Your task to perform on an android device: Open Google Maps and go to "Timeline" Image 0: 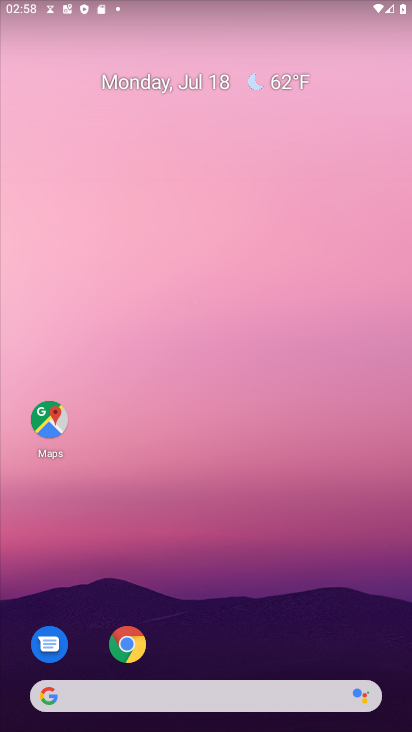
Step 0: drag from (266, 608) to (204, 197)
Your task to perform on an android device: Open Google Maps and go to "Timeline" Image 1: 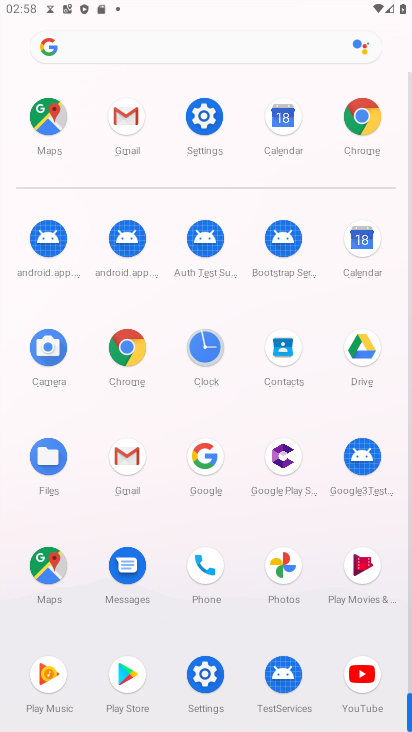
Step 1: click (52, 553)
Your task to perform on an android device: Open Google Maps and go to "Timeline" Image 2: 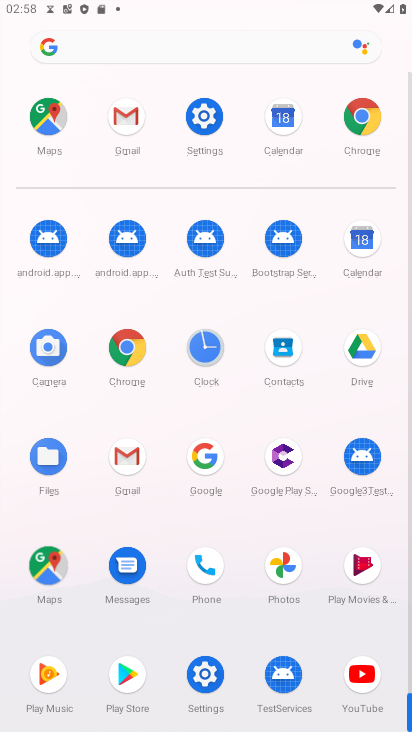
Step 2: click (50, 554)
Your task to perform on an android device: Open Google Maps and go to "Timeline" Image 3: 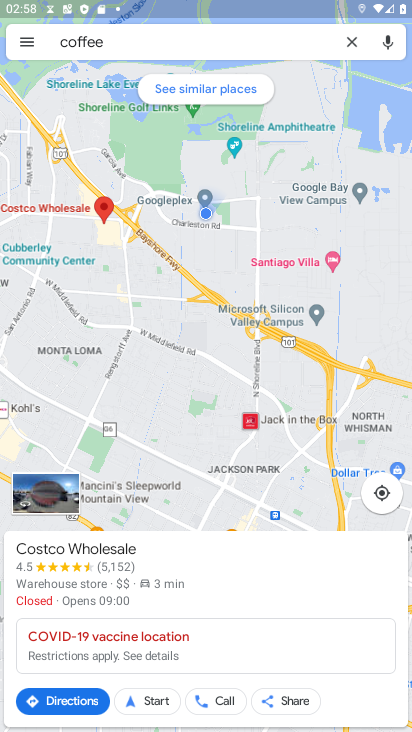
Step 3: click (24, 40)
Your task to perform on an android device: Open Google Maps and go to "Timeline" Image 4: 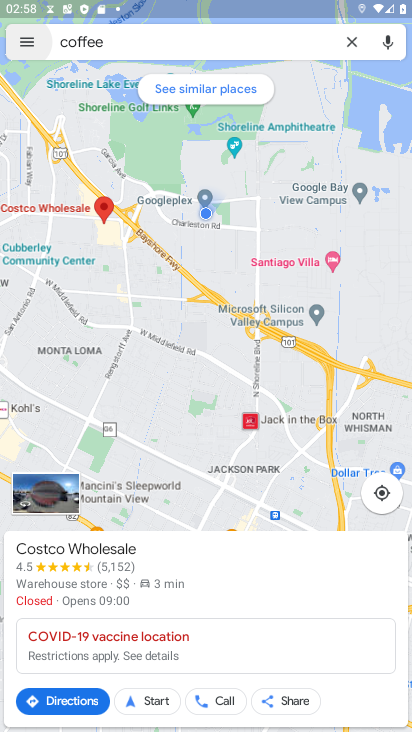
Step 4: click (27, 41)
Your task to perform on an android device: Open Google Maps and go to "Timeline" Image 5: 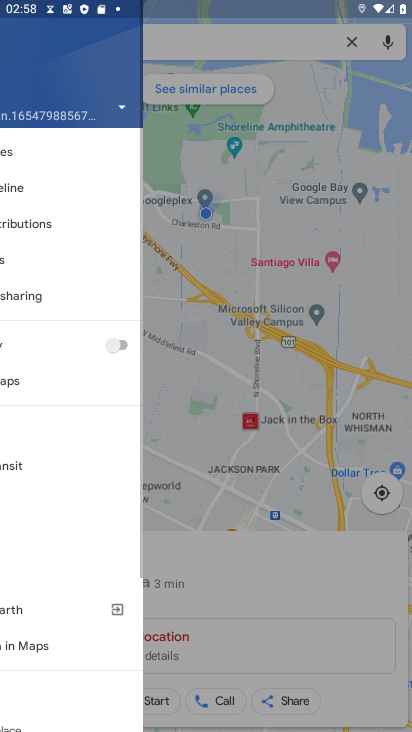
Step 5: click (30, 40)
Your task to perform on an android device: Open Google Maps and go to "Timeline" Image 6: 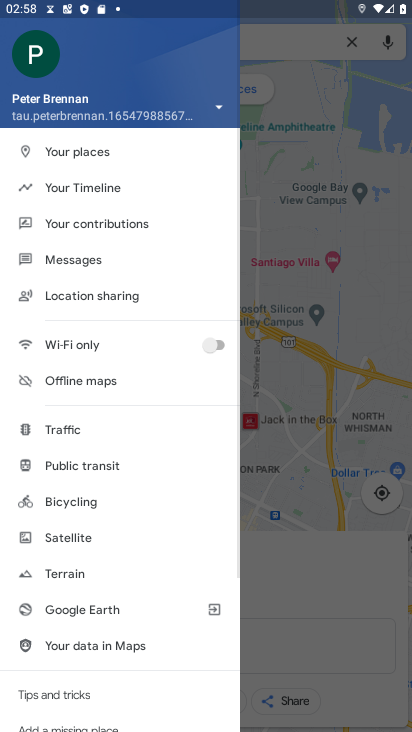
Step 6: click (89, 188)
Your task to perform on an android device: Open Google Maps and go to "Timeline" Image 7: 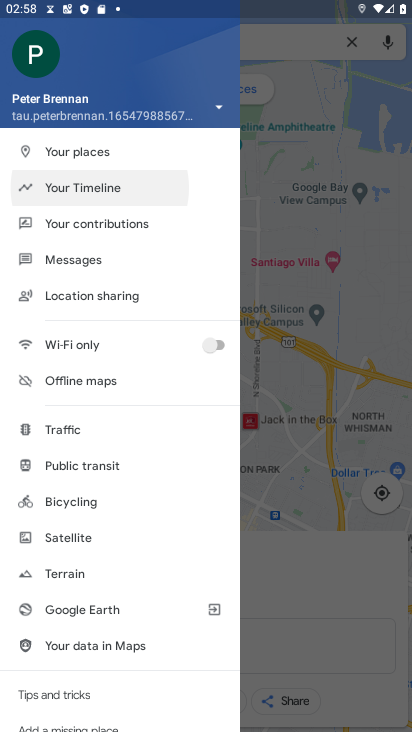
Step 7: click (91, 184)
Your task to perform on an android device: Open Google Maps and go to "Timeline" Image 8: 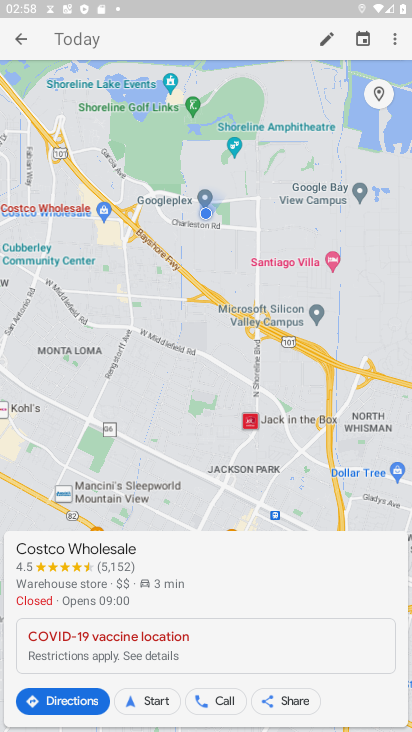
Step 8: click (93, 185)
Your task to perform on an android device: Open Google Maps and go to "Timeline" Image 9: 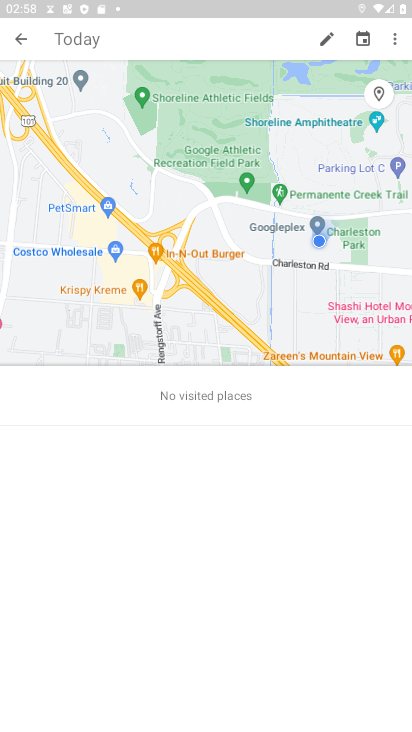
Step 9: click (391, 35)
Your task to perform on an android device: Open Google Maps and go to "Timeline" Image 10: 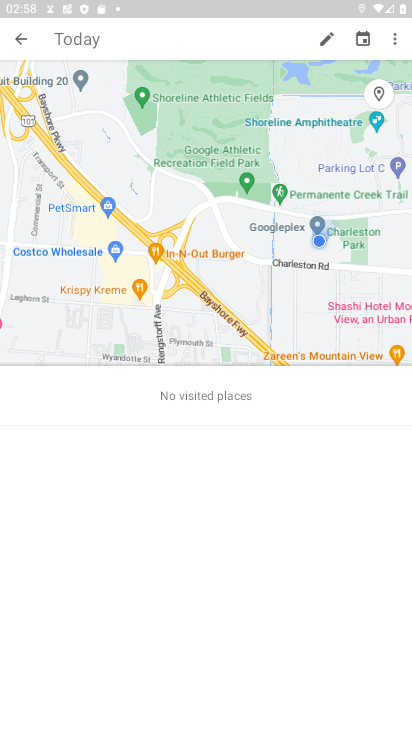
Step 10: task complete